Your task to perform on an android device: Open internet settings Image 0: 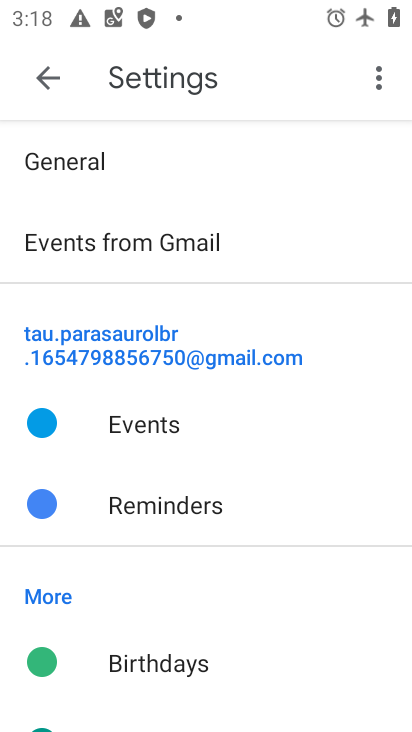
Step 0: press home button
Your task to perform on an android device: Open internet settings Image 1: 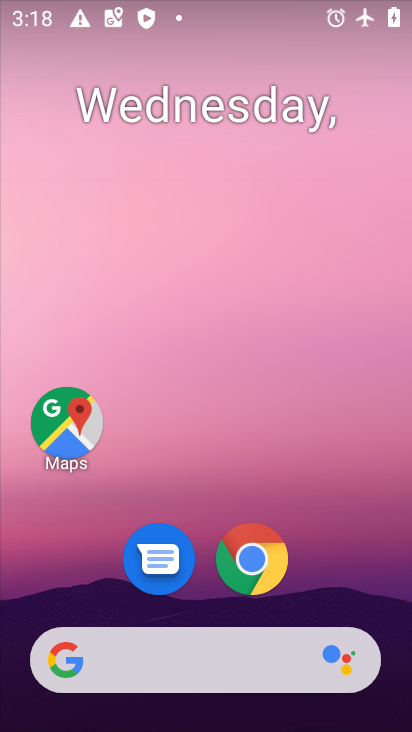
Step 1: drag from (211, 577) to (195, 40)
Your task to perform on an android device: Open internet settings Image 2: 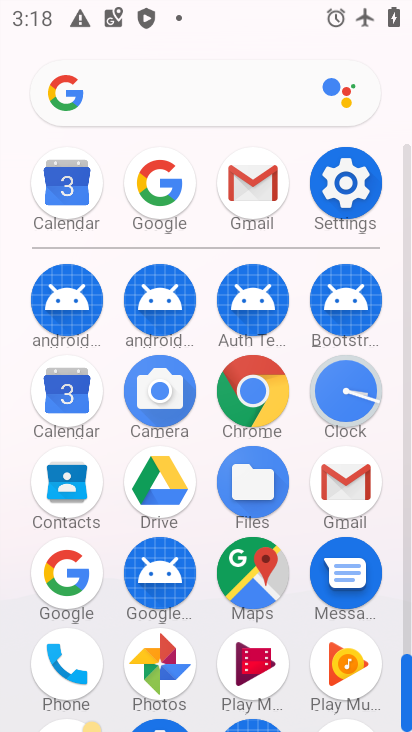
Step 2: click (355, 185)
Your task to perform on an android device: Open internet settings Image 3: 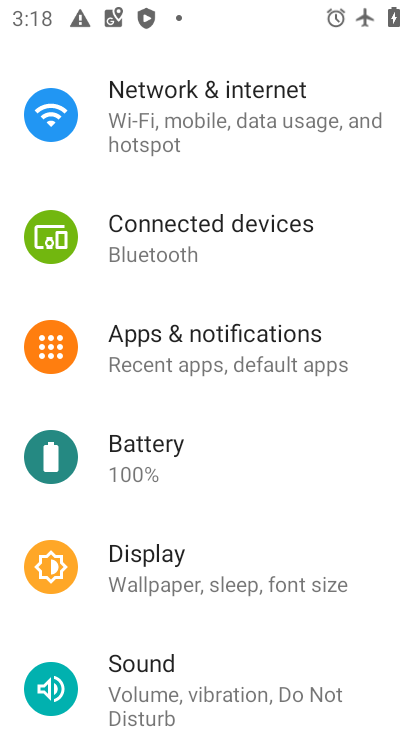
Step 3: click (219, 114)
Your task to perform on an android device: Open internet settings Image 4: 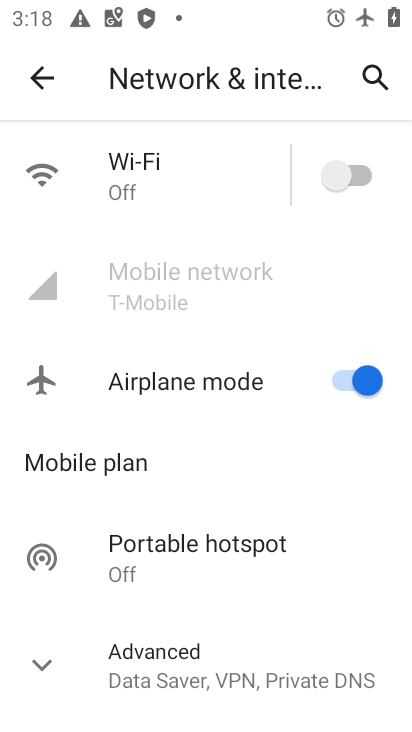
Step 4: task complete